Your task to perform on an android device: refresh tabs in the chrome app Image 0: 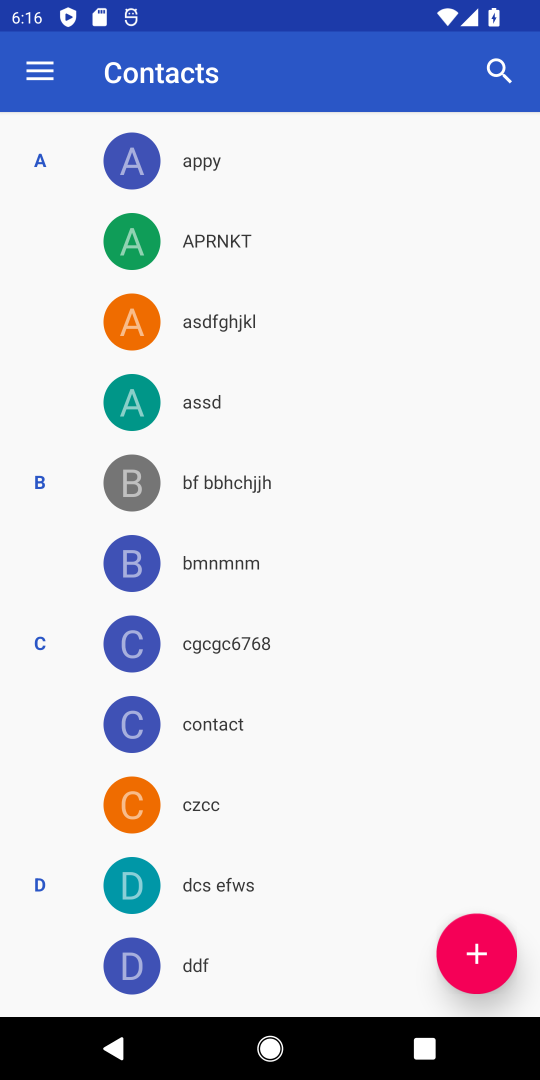
Step 0: press home button
Your task to perform on an android device: refresh tabs in the chrome app Image 1: 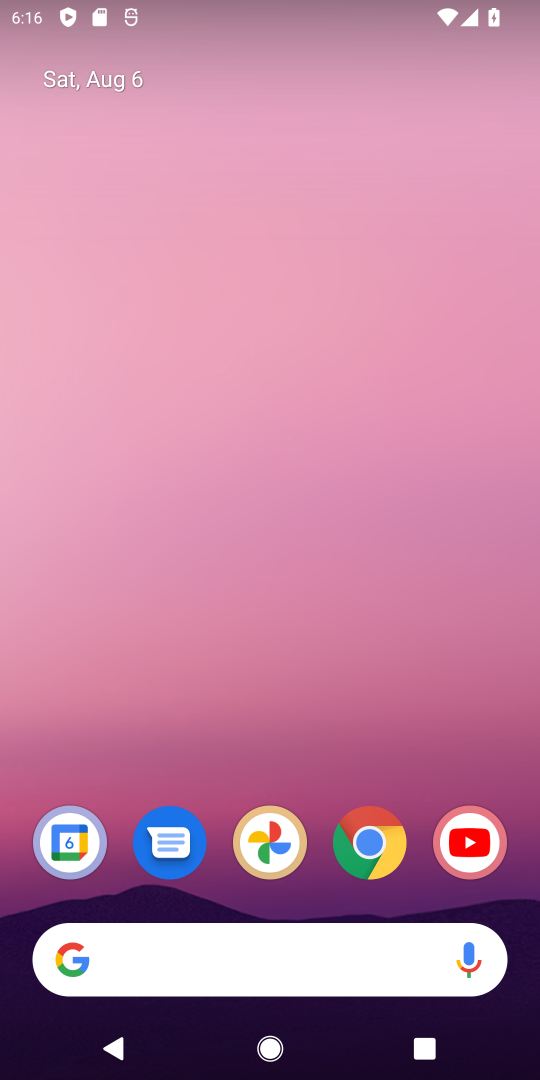
Step 1: click (370, 849)
Your task to perform on an android device: refresh tabs in the chrome app Image 2: 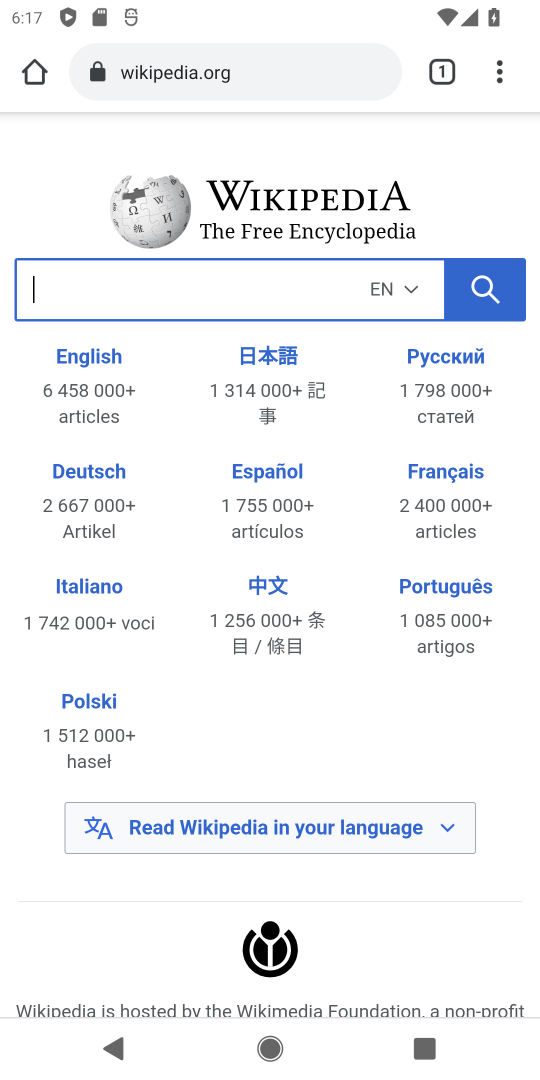
Step 2: click (507, 71)
Your task to perform on an android device: refresh tabs in the chrome app Image 3: 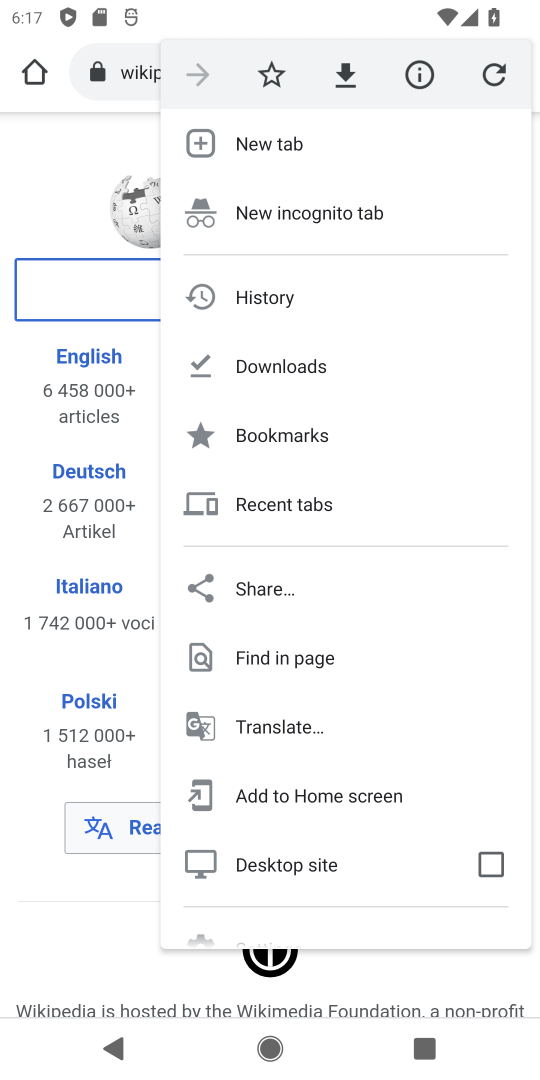
Step 3: click (507, 71)
Your task to perform on an android device: refresh tabs in the chrome app Image 4: 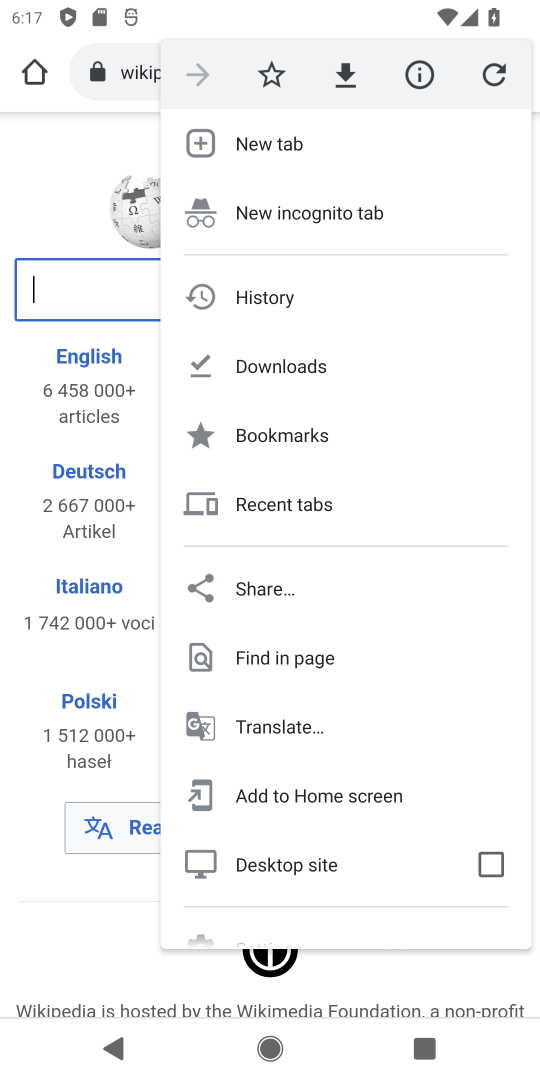
Step 4: click (507, 71)
Your task to perform on an android device: refresh tabs in the chrome app Image 5: 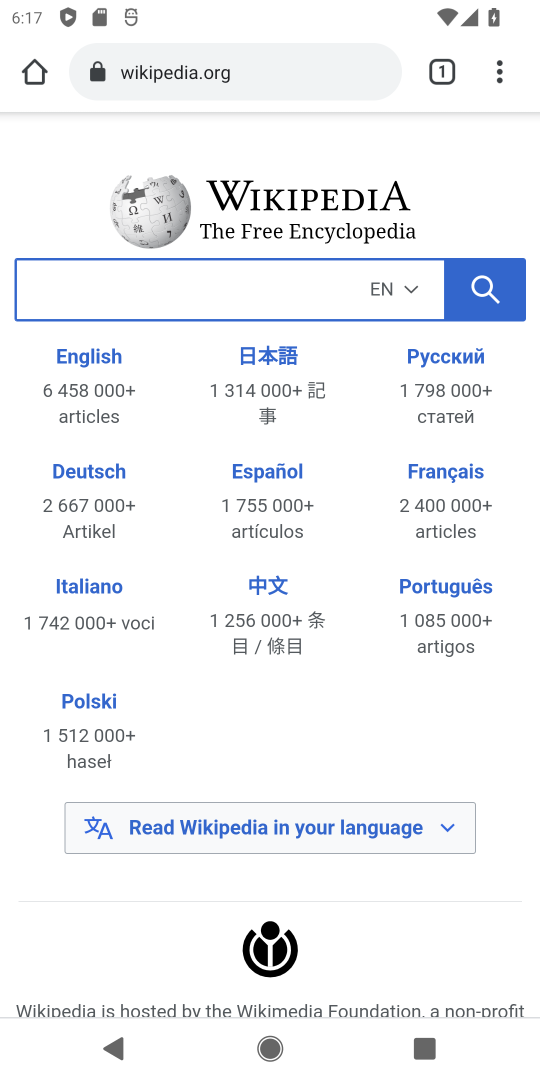
Step 5: task complete